Your task to perform on an android device: Search for Italian restaurants on Maps Image 0: 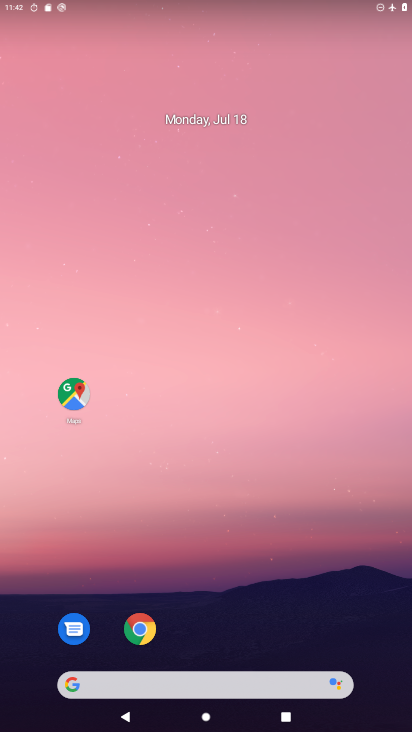
Step 0: drag from (326, 575) to (270, 74)
Your task to perform on an android device: Search for Italian restaurants on Maps Image 1: 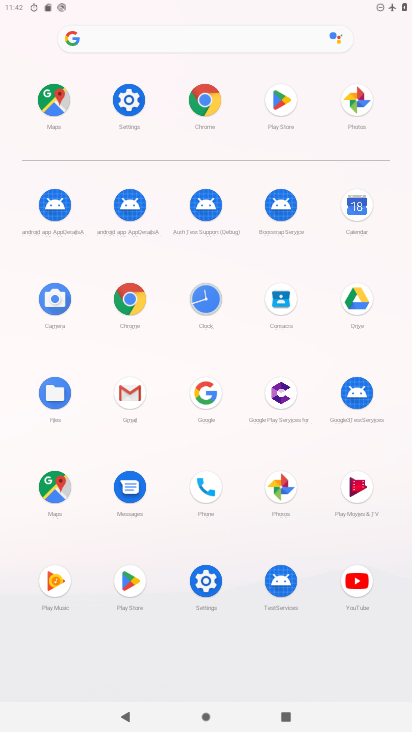
Step 1: click (58, 482)
Your task to perform on an android device: Search for Italian restaurants on Maps Image 2: 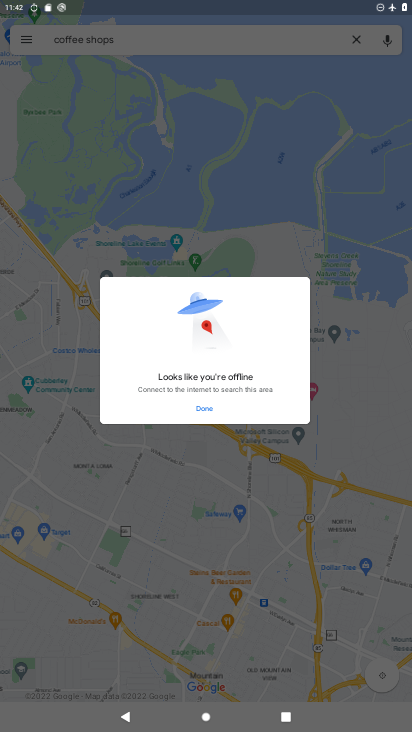
Step 2: click (209, 402)
Your task to perform on an android device: Search for Italian restaurants on Maps Image 3: 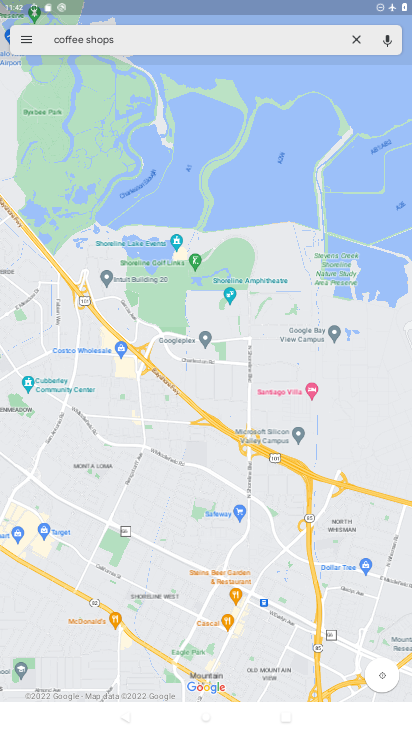
Step 3: click (212, 44)
Your task to perform on an android device: Search for Italian restaurants on Maps Image 4: 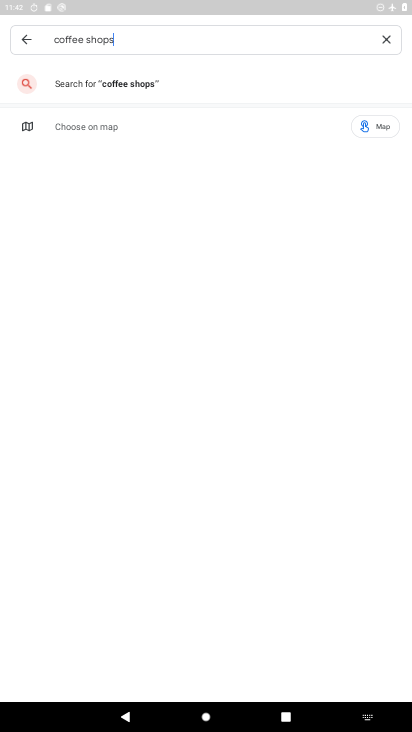
Step 4: click (390, 43)
Your task to perform on an android device: Search for Italian restaurants on Maps Image 5: 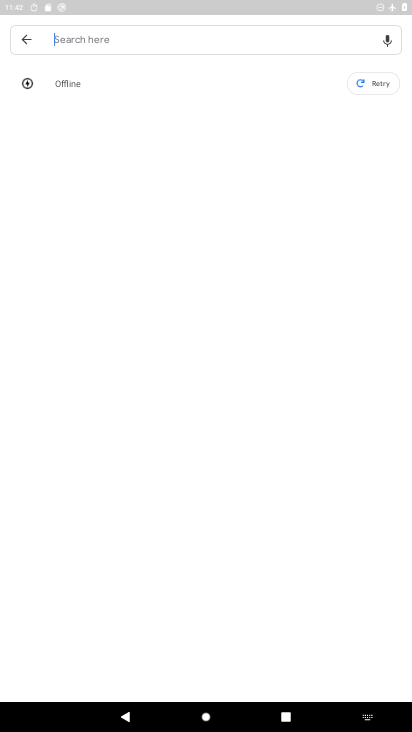
Step 5: type "Italian restaurants"
Your task to perform on an android device: Search for Italian restaurants on Maps Image 6: 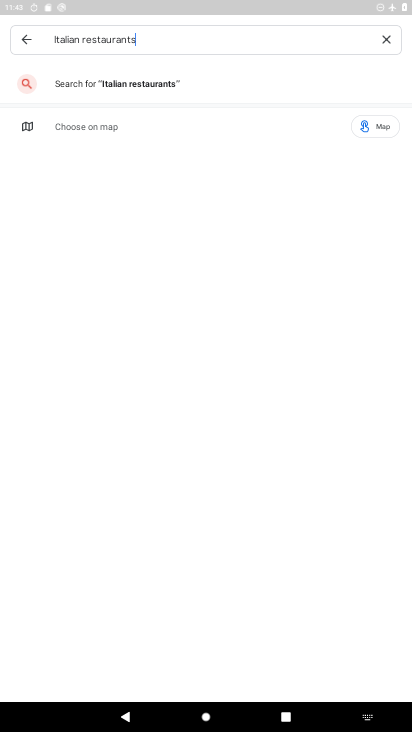
Step 6: press enter
Your task to perform on an android device: Search for Italian restaurants on Maps Image 7: 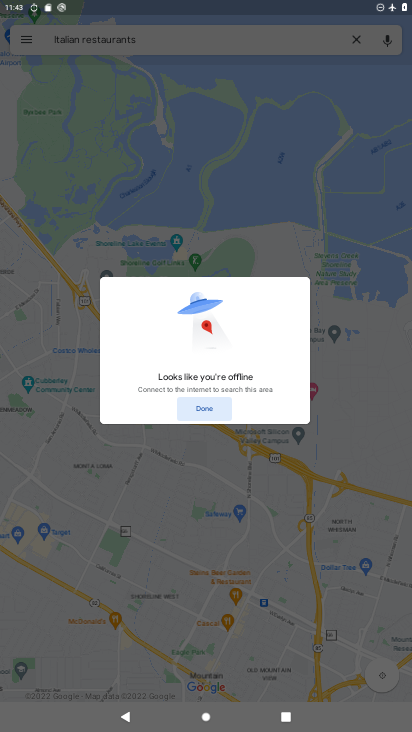
Step 7: click (157, 83)
Your task to perform on an android device: Search for Italian restaurants on Maps Image 8: 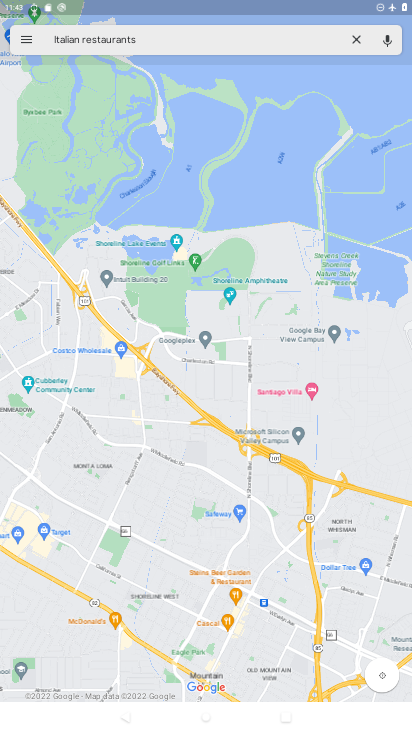
Step 8: task complete